Your task to perform on an android device: toggle show notifications on the lock screen Image 0: 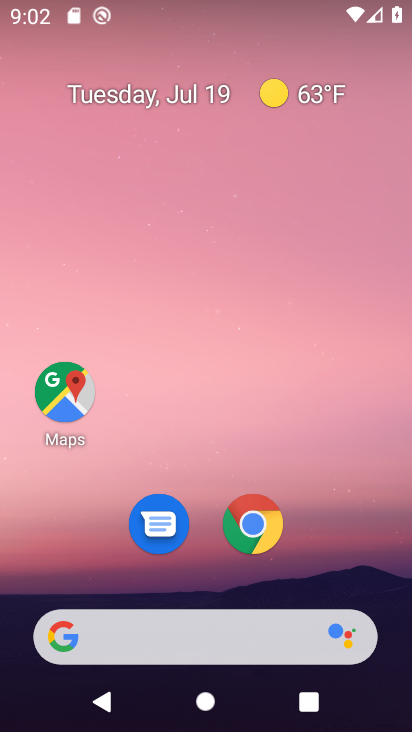
Step 0: press home button
Your task to perform on an android device: toggle show notifications on the lock screen Image 1: 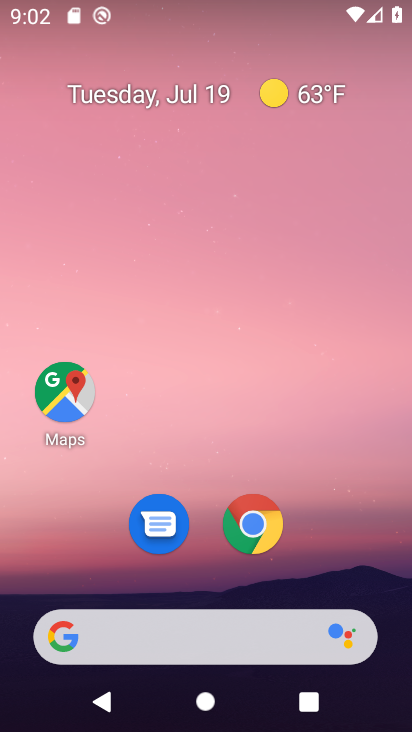
Step 1: drag from (240, 540) to (308, 142)
Your task to perform on an android device: toggle show notifications on the lock screen Image 2: 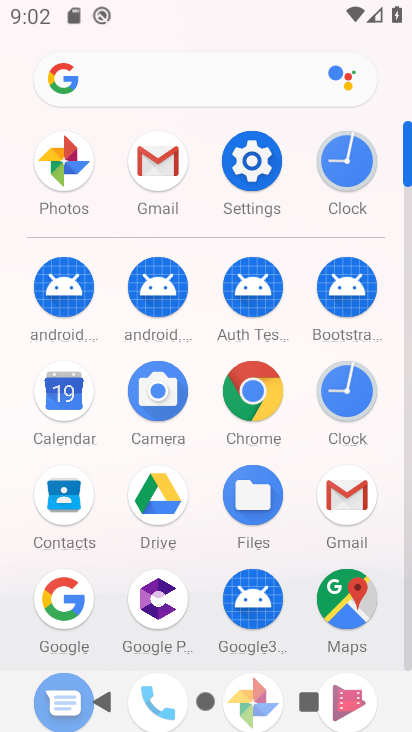
Step 2: click (257, 179)
Your task to perform on an android device: toggle show notifications on the lock screen Image 3: 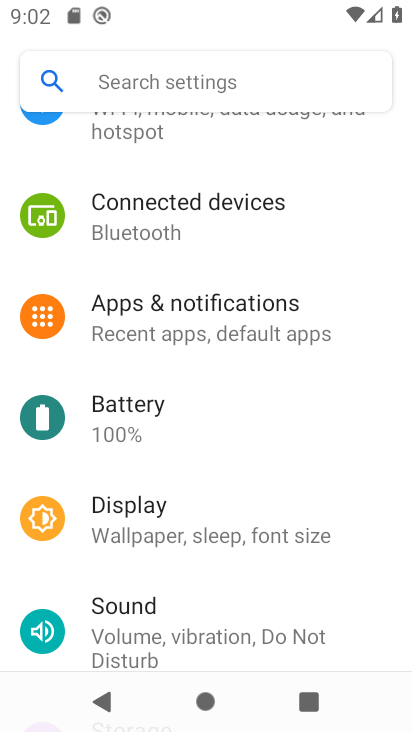
Step 3: click (208, 308)
Your task to perform on an android device: toggle show notifications on the lock screen Image 4: 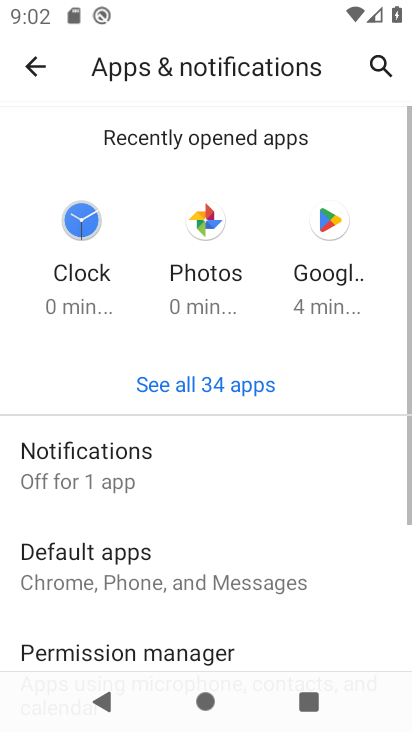
Step 4: click (111, 456)
Your task to perform on an android device: toggle show notifications on the lock screen Image 5: 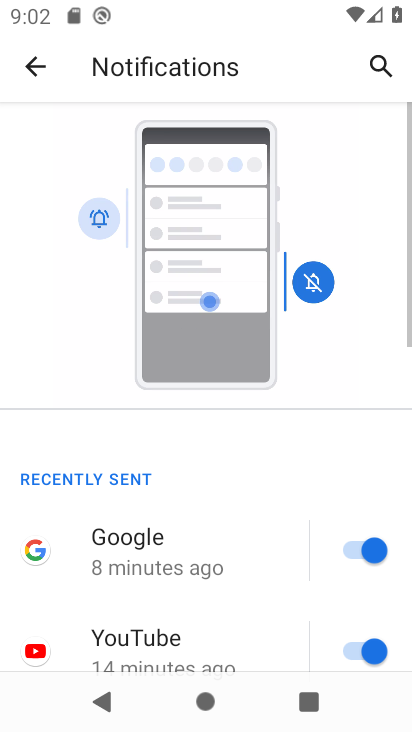
Step 5: drag from (201, 590) to (324, 118)
Your task to perform on an android device: toggle show notifications on the lock screen Image 6: 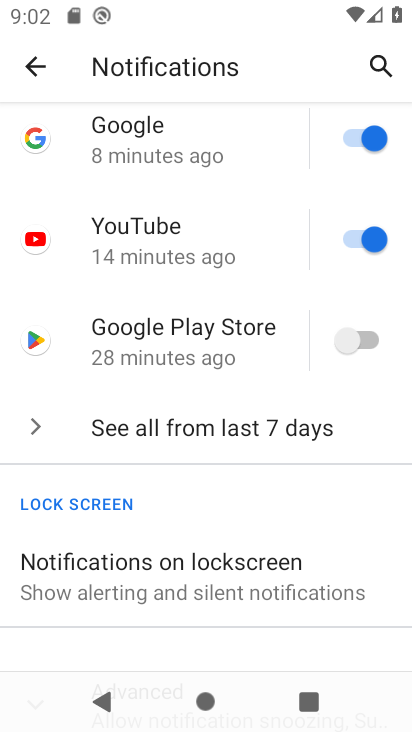
Step 6: click (190, 552)
Your task to perform on an android device: toggle show notifications on the lock screen Image 7: 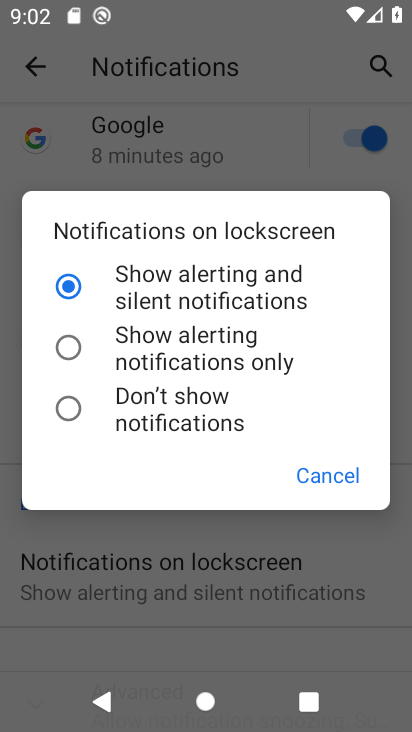
Step 7: click (69, 409)
Your task to perform on an android device: toggle show notifications on the lock screen Image 8: 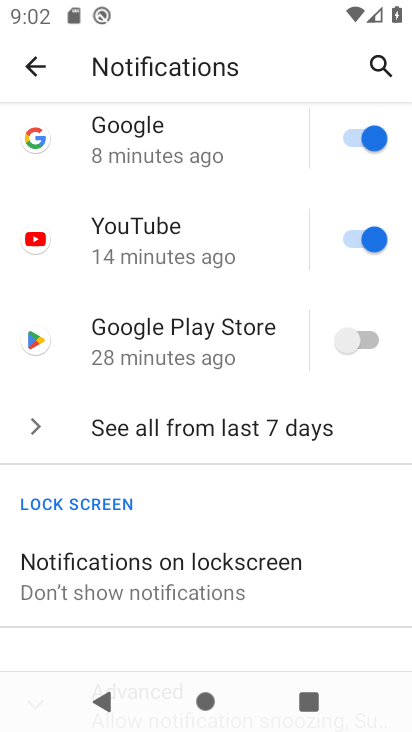
Step 8: task complete